Your task to perform on an android device: Search for Italian restaurants on Maps Image 0: 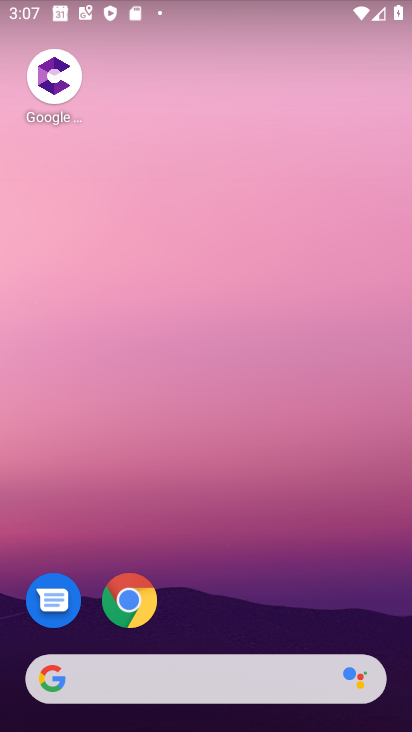
Step 0: drag from (210, 632) to (153, 86)
Your task to perform on an android device: Search for Italian restaurants on Maps Image 1: 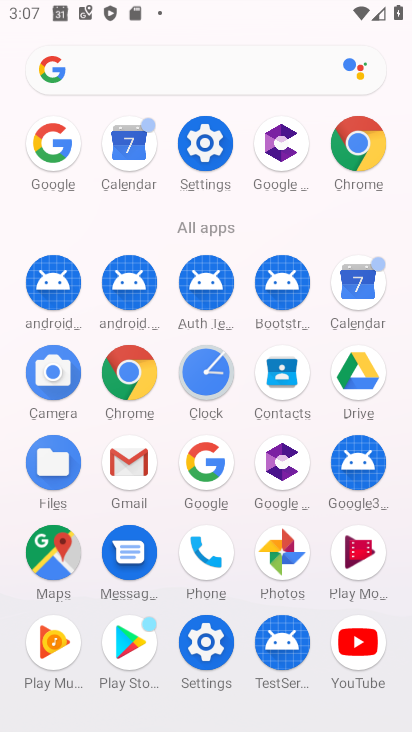
Step 1: click (47, 575)
Your task to perform on an android device: Search for Italian restaurants on Maps Image 2: 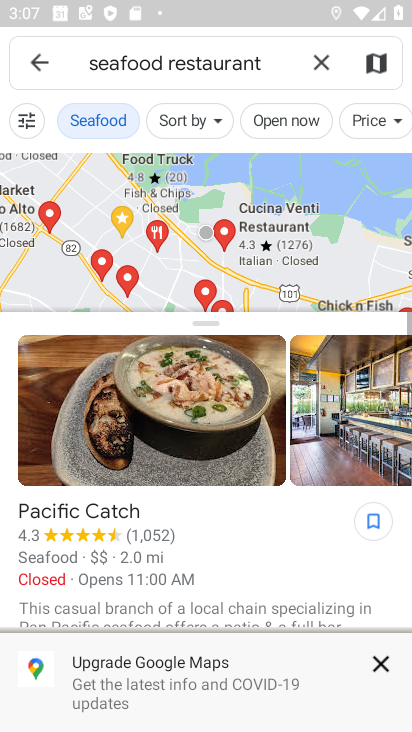
Step 2: click (318, 74)
Your task to perform on an android device: Search for Italian restaurants on Maps Image 3: 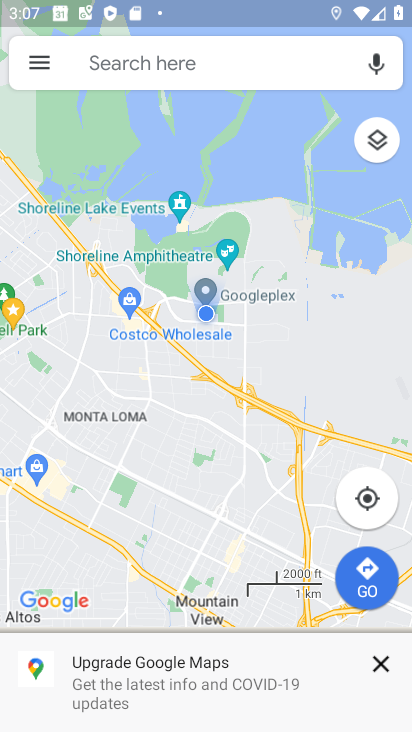
Step 3: click (179, 65)
Your task to perform on an android device: Search for Italian restaurants on Maps Image 4: 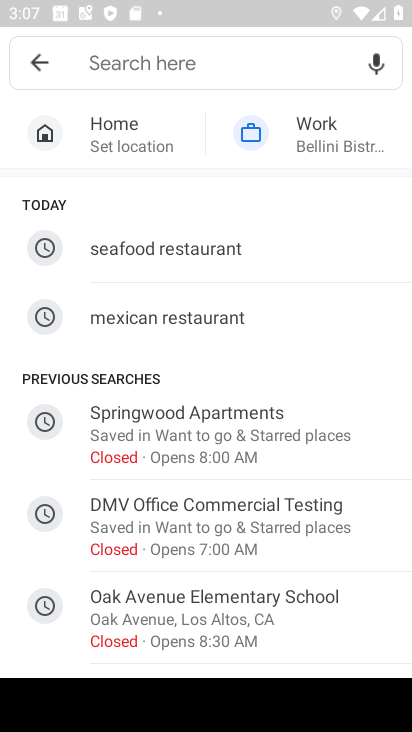
Step 4: type "italian restaurants"
Your task to perform on an android device: Search for Italian restaurants on Maps Image 5: 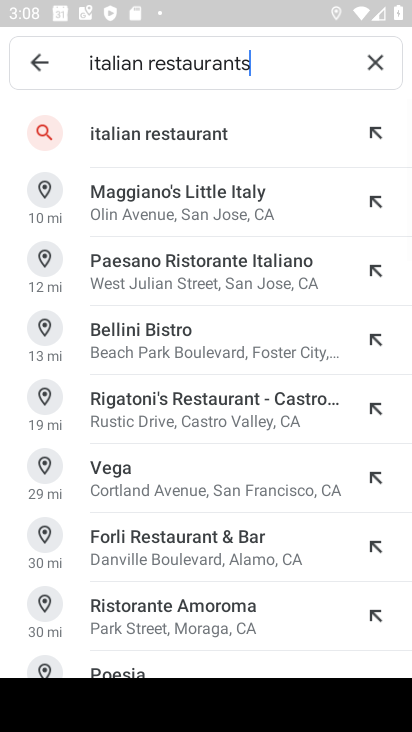
Step 5: click (200, 144)
Your task to perform on an android device: Search for Italian restaurants on Maps Image 6: 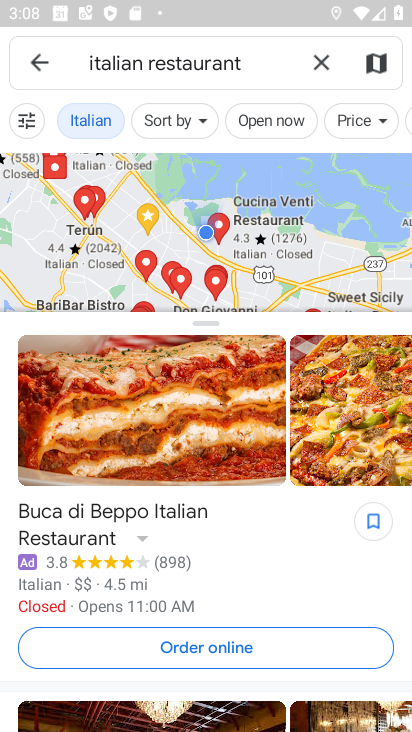
Step 6: task complete